Your task to perform on an android device: Open Android settings Image 0: 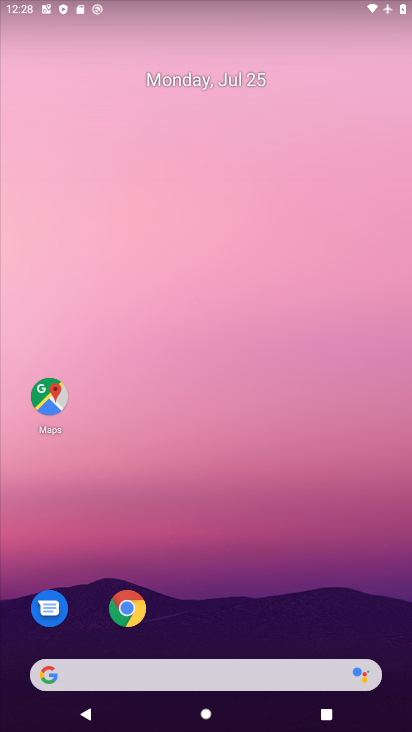
Step 0: drag from (263, 495) to (313, 83)
Your task to perform on an android device: Open Android settings Image 1: 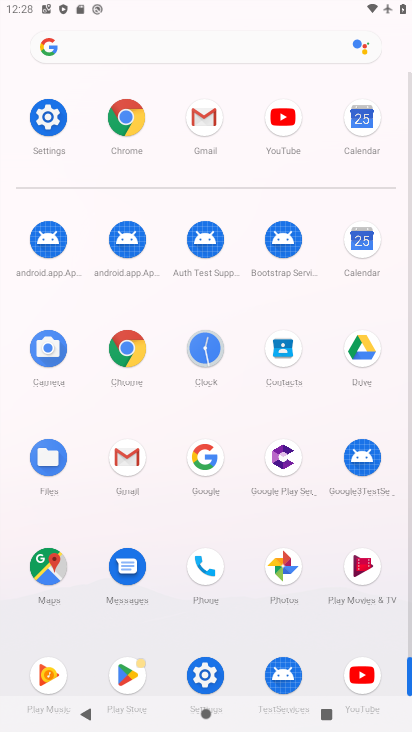
Step 1: click (44, 153)
Your task to perform on an android device: Open Android settings Image 2: 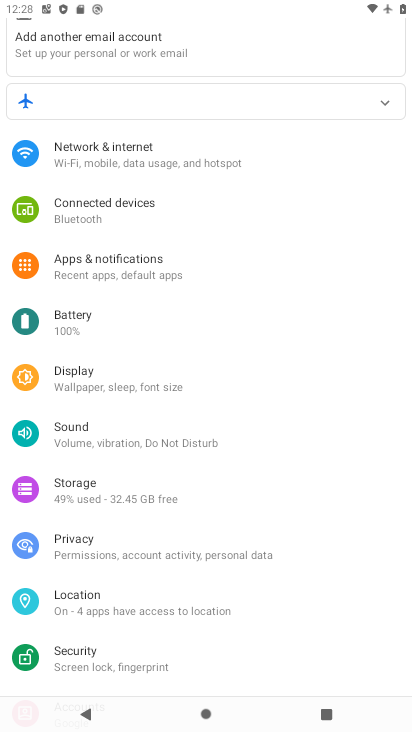
Step 2: drag from (134, 476) to (219, 83)
Your task to perform on an android device: Open Android settings Image 3: 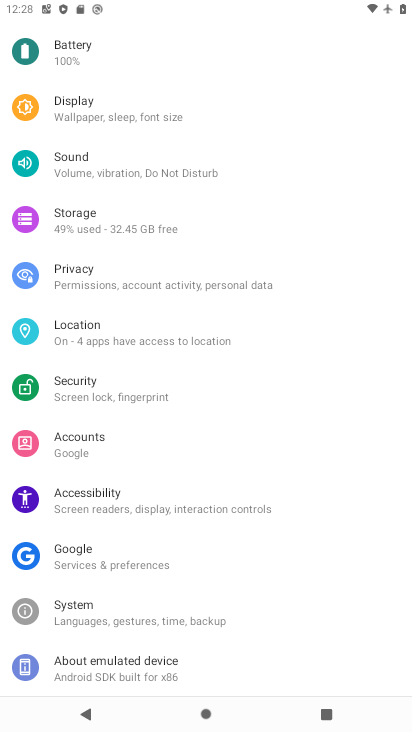
Step 3: drag from (161, 563) to (216, 295)
Your task to perform on an android device: Open Android settings Image 4: 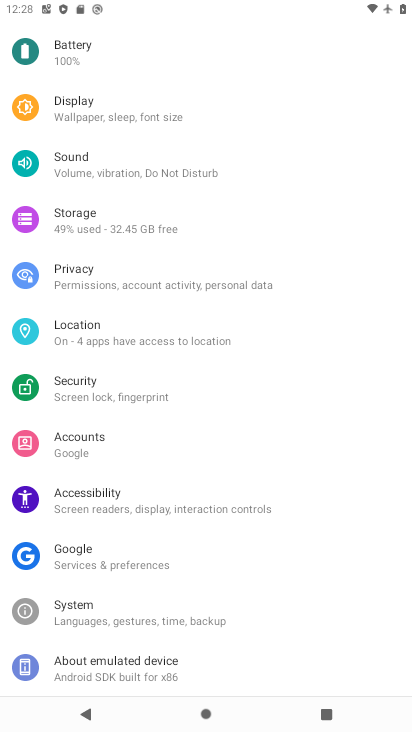
Step 4: click (188, 668)
Your task to perform on an android device: Open Android settings Image 5: 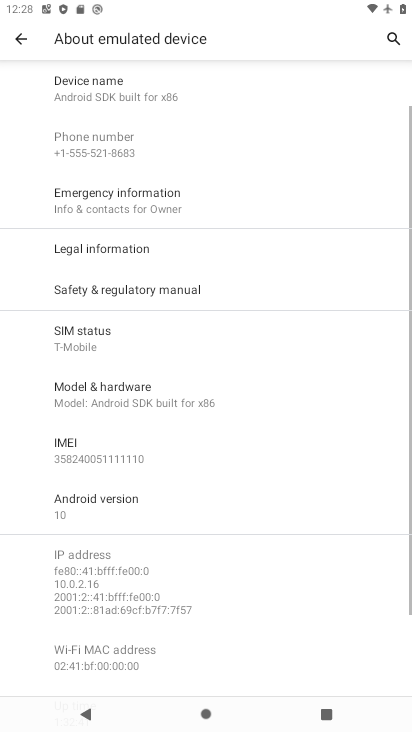
Step 5: click (132, 503)
Your task to perform on an android device: Open Android settings Image 6: 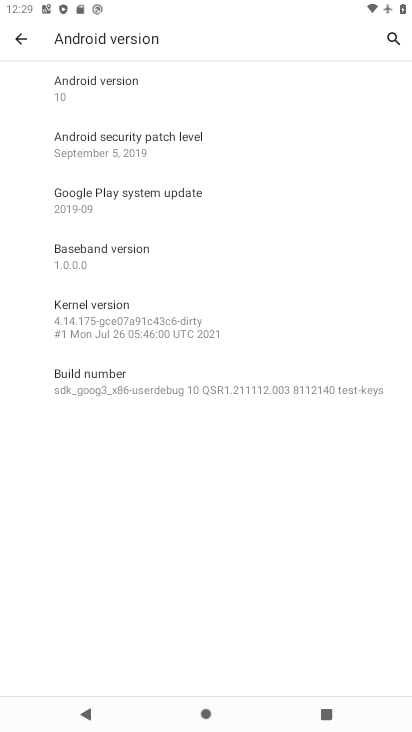
Step 6: task complete